Your task to perform on an android device: clear history in the chrome app Image 0: 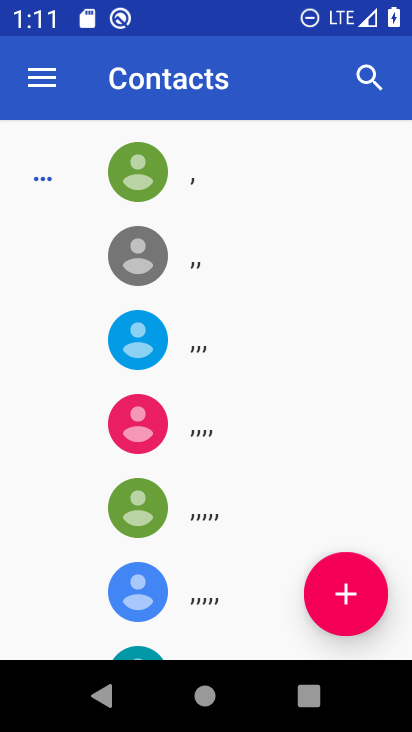
Step 0: type ""
Your task to perform on an android device: clear history in the chrome app Image 1: 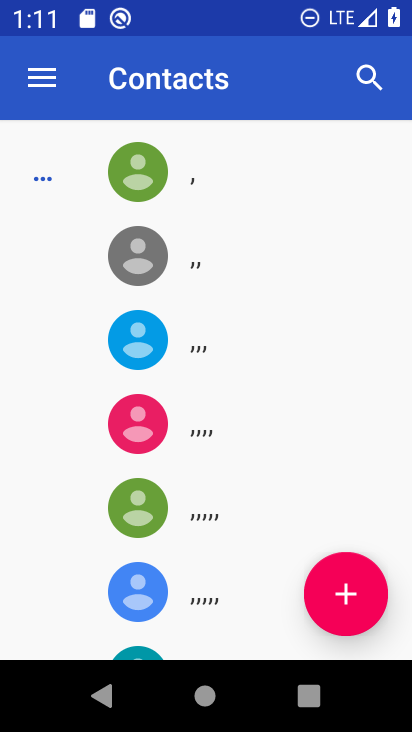
Step 1: press home button
Your task to perform on an android device: clear history in the chrome app Image 2: 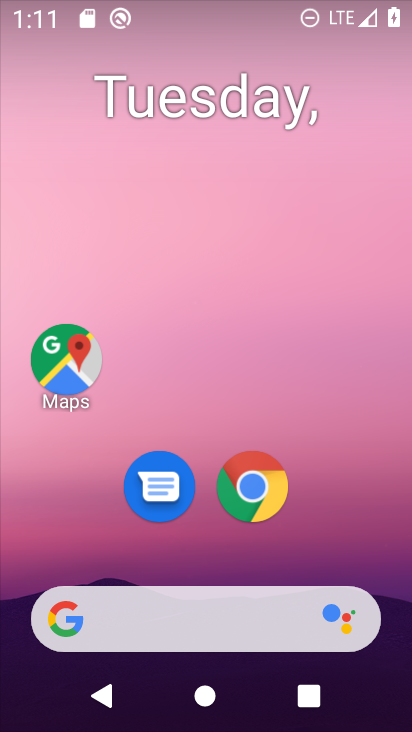
Step 2: drag from (5, 712) to (347, 78)
Your task to perform on an android device: clear history in the chrome app Image 3: 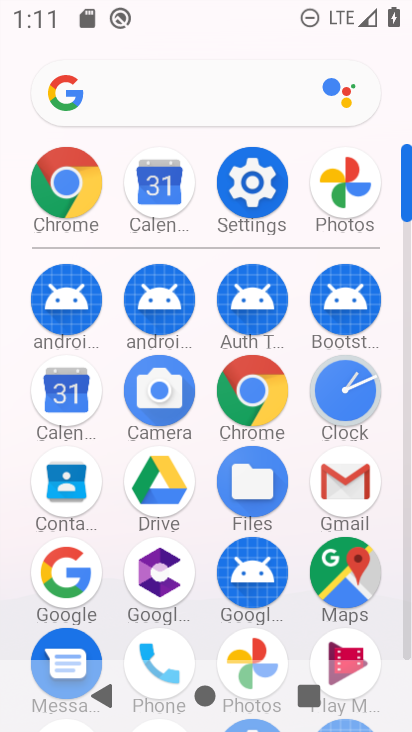
Step 3: click (49, 184)
Your task to perform on an android device: clear history in the chrome app Image 4: 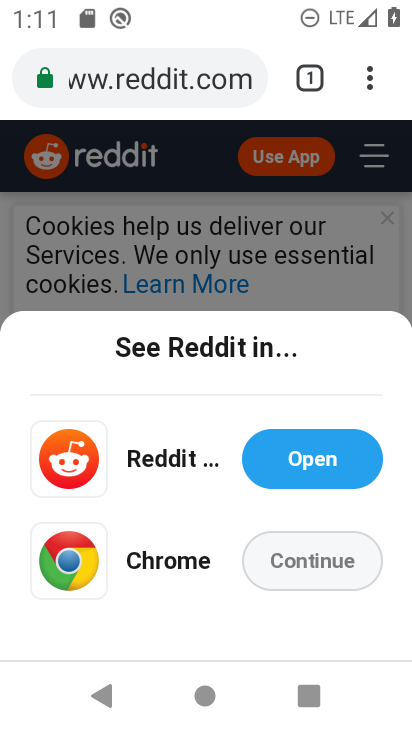
Step 4: click (365, 81)
Your task to perform on an android device: clear history in the chrome app Image 5: 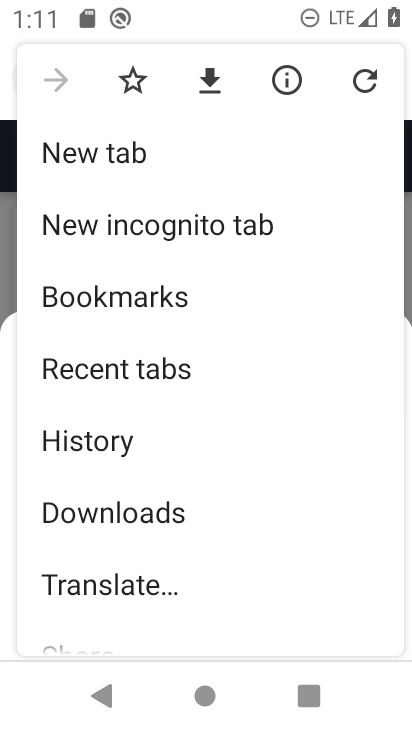
Step 5: click (80, 447)
Your task to perform on an android device: clear history in the chrome app Image 6: 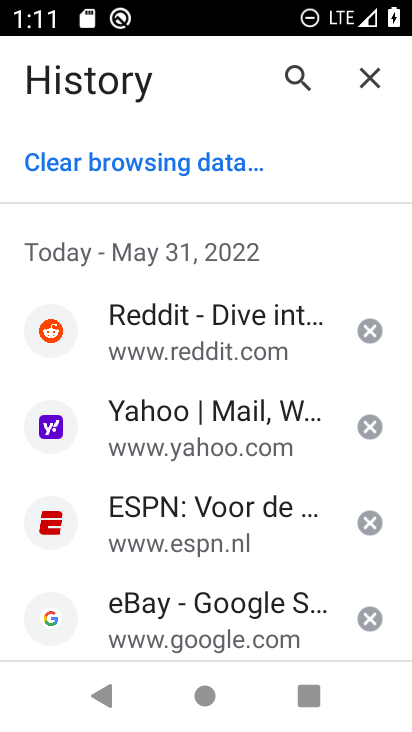
Step 6: click (168, 160)
Your task to perform on an android device: clear history in the chrome app Image 7: 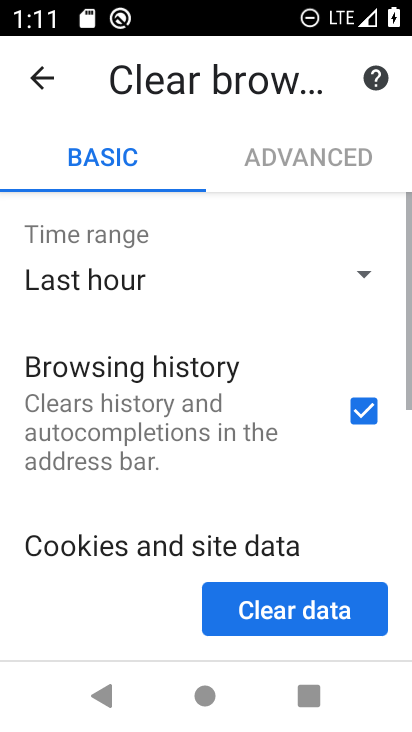
Step 7: click (278, 595)
Your task to perform on an android device: clear history in the chrome app Image 8: 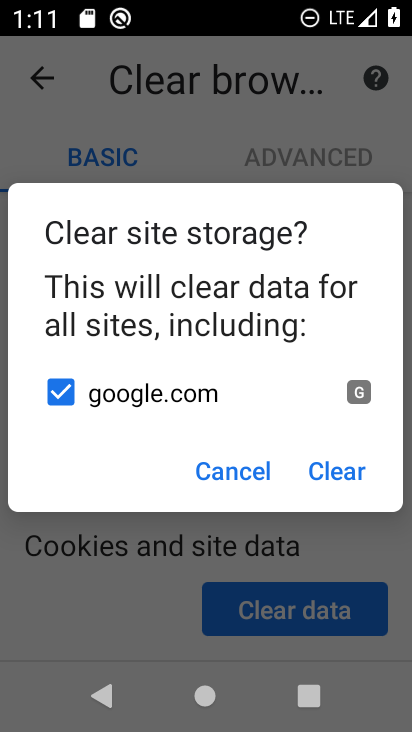
Step 8: click (337, 475)
Your task to perform on an android device: clear history in the chrome app Image 9: 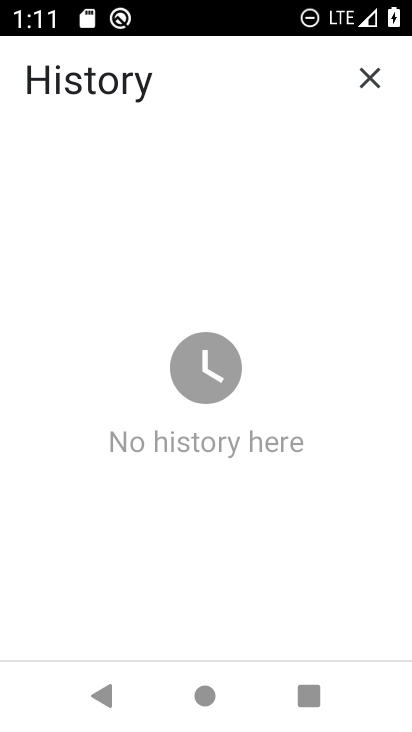
Step 9: task complete